Your task to perform on an android device: turn on bluetooth scan Image 0: 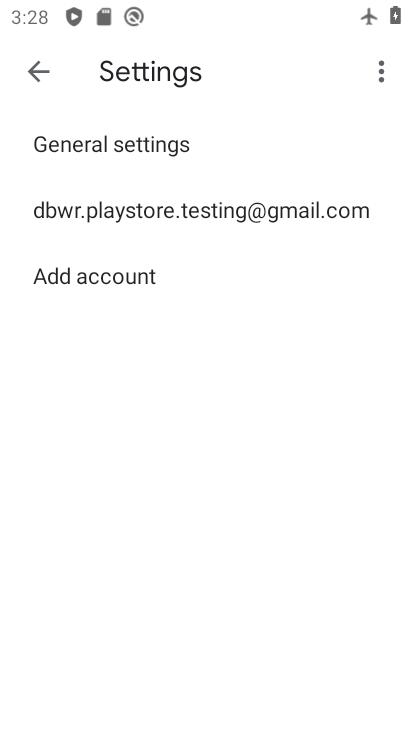
Step 0: press home button
Your task to perform on an android device: turn on bluetooth scan Image 1: 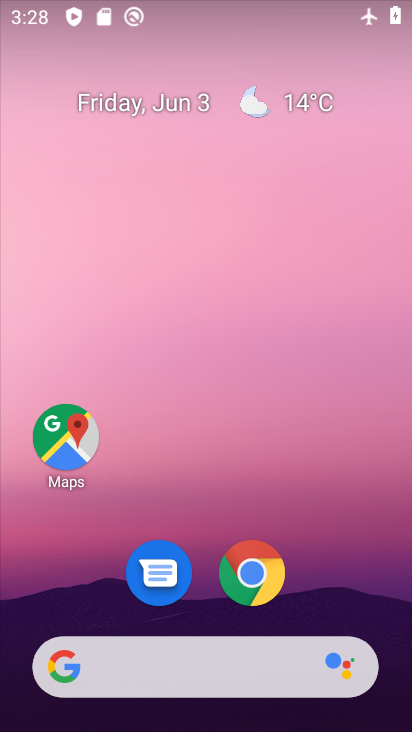
Step 1: drag from (215, 425) to (239, 89)
Your task to perform on an android device: turn on bluetooth scan Image 2: 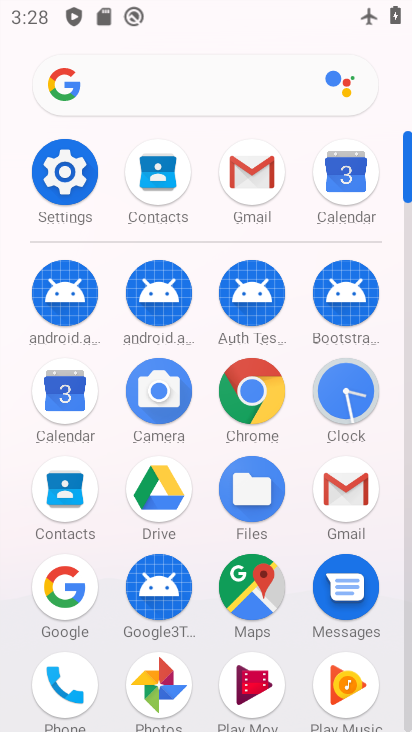
Step 2: click (71, 195)
Your task to perform on an android device: turn on bluetooth scan Image 3: 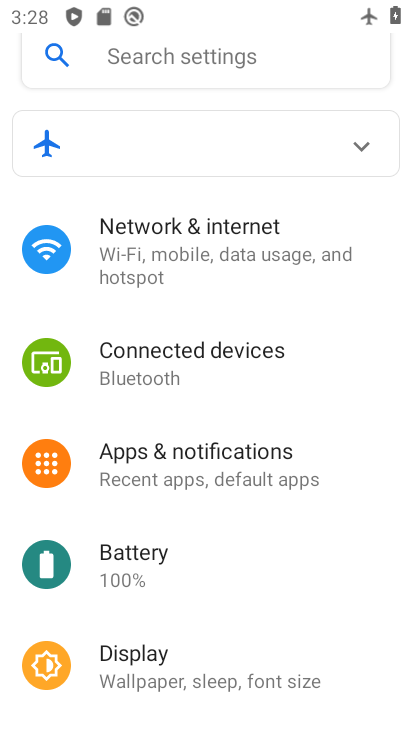
Step 3: click (234, 366)
Your task to perform on an android device: turn on bluetooth scan Image 4: 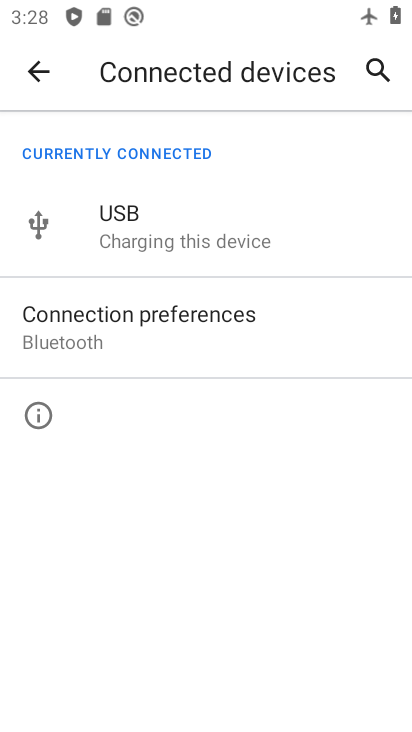
Step 4: click (233, 343)
Your task to perform on an android device: turn on bluetooth scan Image 5: 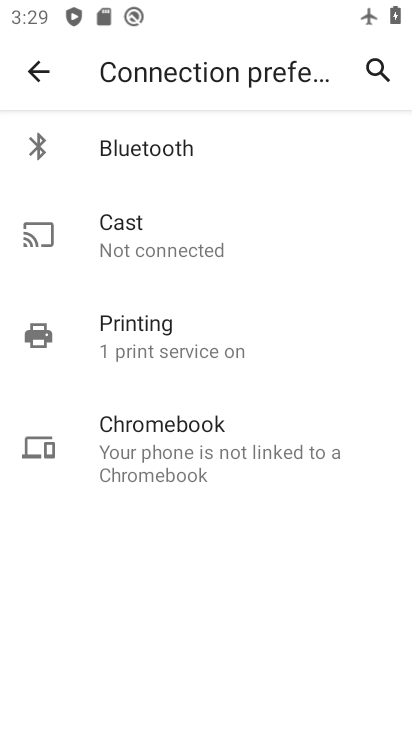
Step 5: click (134, 139)
Your task to perform on an android device: turn on bluetooth scan Image 6: 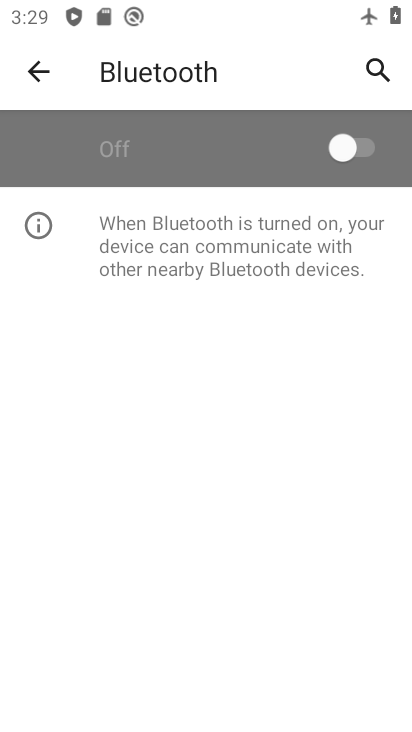
Step 6: click (373, 152)
Your task to perform on an android device: turn on bluetooth scan Image 7: 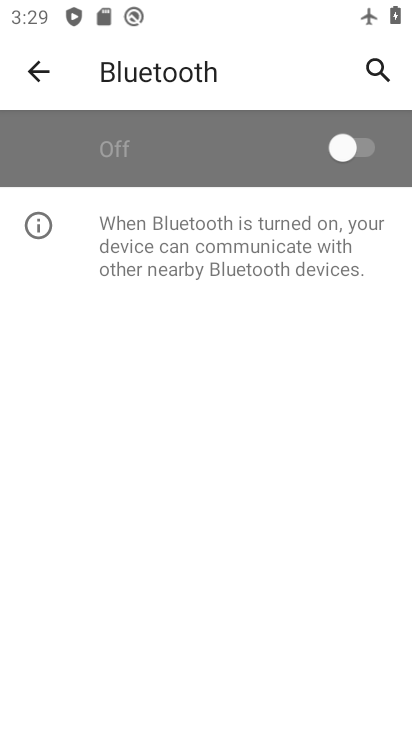
Step 7: task complete